Your task to perform on an android device: find photos in the google photos app Image 0: 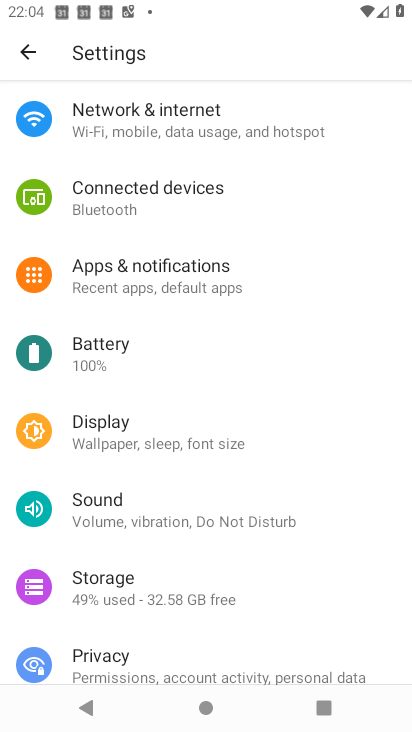
Step 0: press home button
Your task to perform on an android device: find photos in the google photos app Image 1: 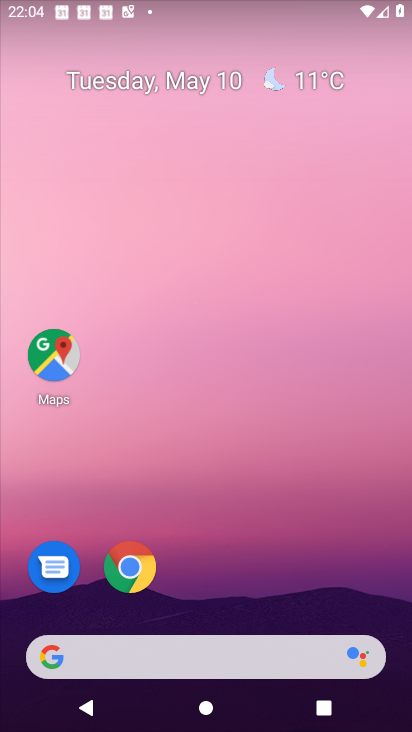
Step 1: drag from (178, 600) to (174, 236)
Your task to perform on an android device: find photos in the google photos app Image 2: 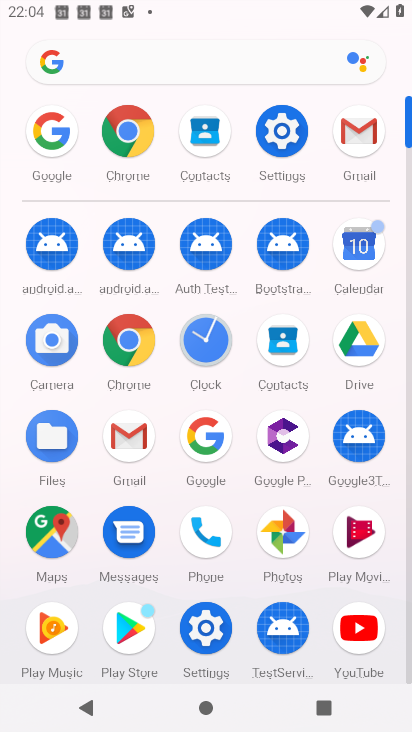
Step 2: click (283, 545)
Your task to perform on an android device: find photos in the google photos app Image 3: 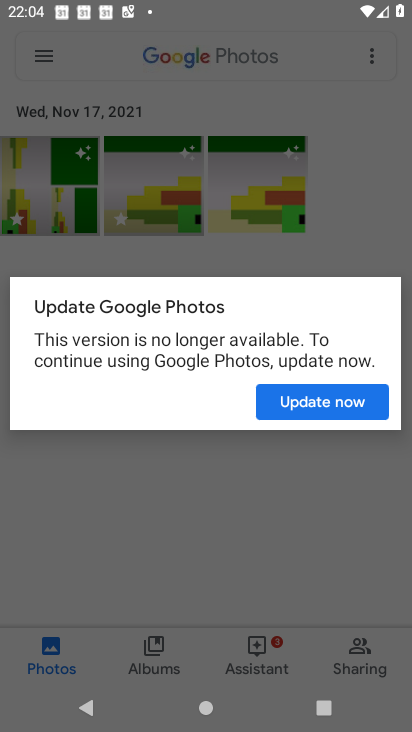
Step 3: click (311, 398)
Your task to perform on an android device: find photos in the google photos app Image 4: 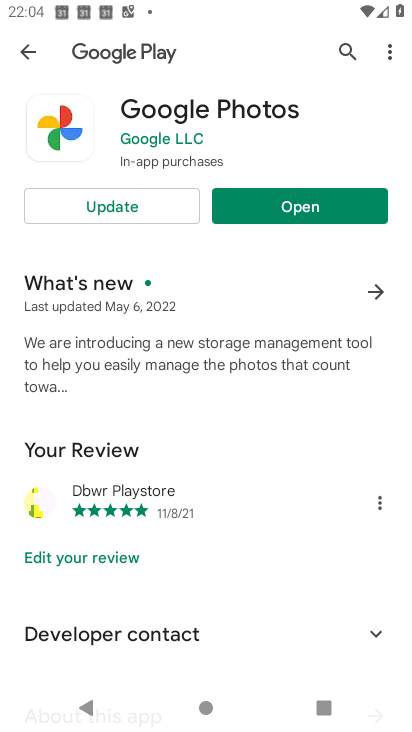
Step 4: click (149, 209)
Your task to perform on an android device: find photos in the google photos app Image 5: 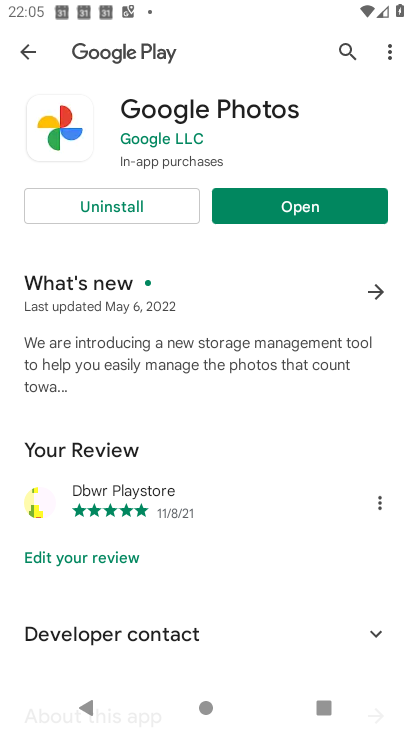
Step 5: press home button
Your task to perform on an android device: find photos in the google photos app Image 6: 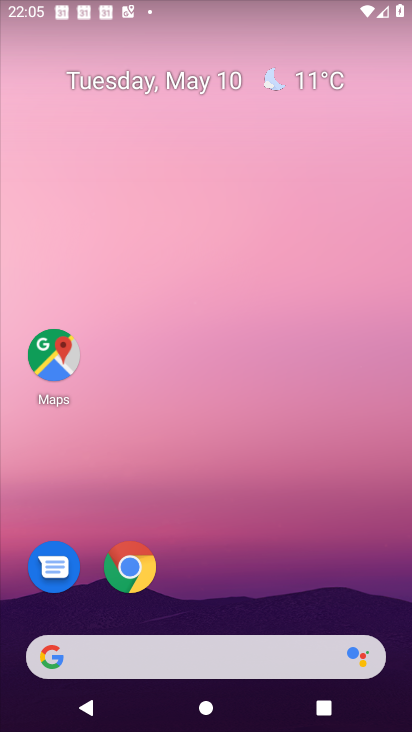
Step 6: drag from (177, 630) to (127, 432)
Your task to perform on an android device: find photos in the google photos app Image 7: 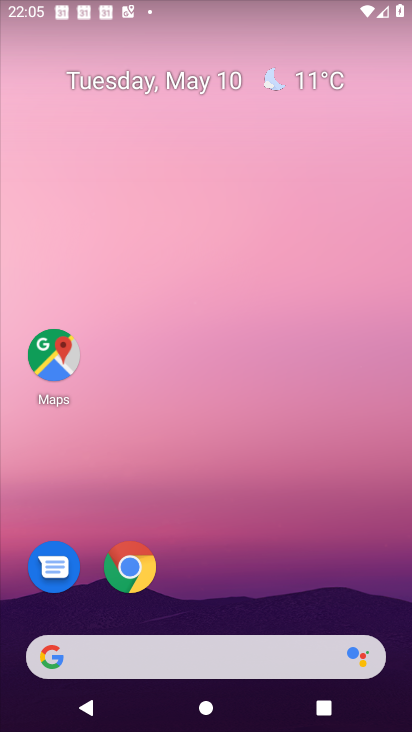
Step 7: drag from (185, 629) to (106, 234)
Your task to perform on an android device: find photos in the google photos app Image 8: 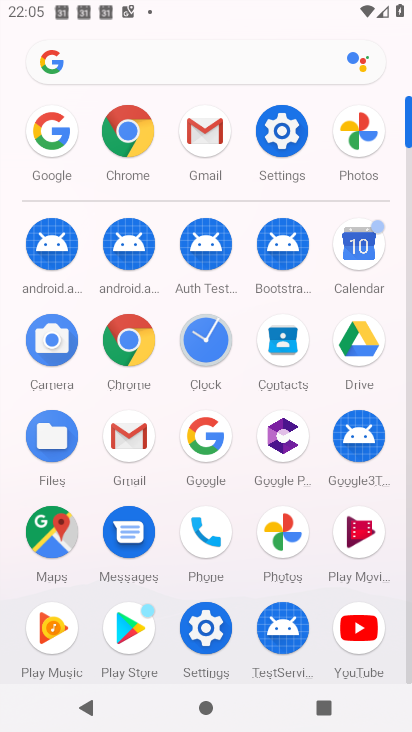
Step 8: click (295, 538)
Your task to perform on an android device: find photos in the google photos app Image 9: 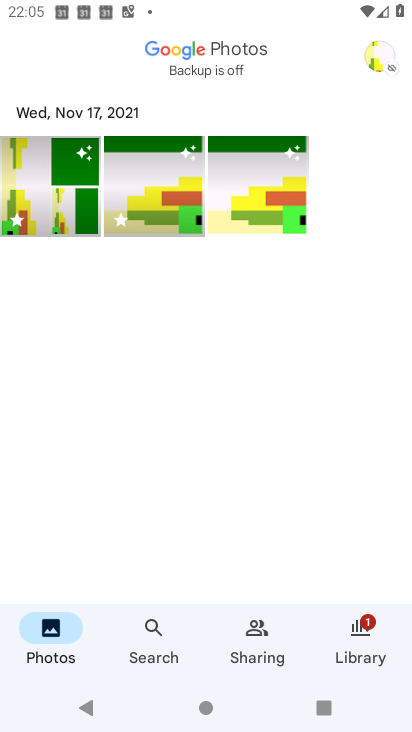
Step 9: click (149, 637)
Your task to perform on an android device: find photos in the google photos app Image 10: 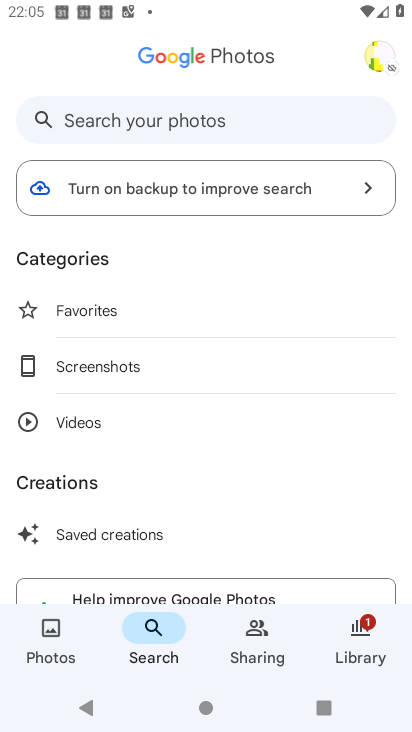
Step 10: click (124, 193)
Your task to perform on an android device: find photos in the google photos app Image 11: 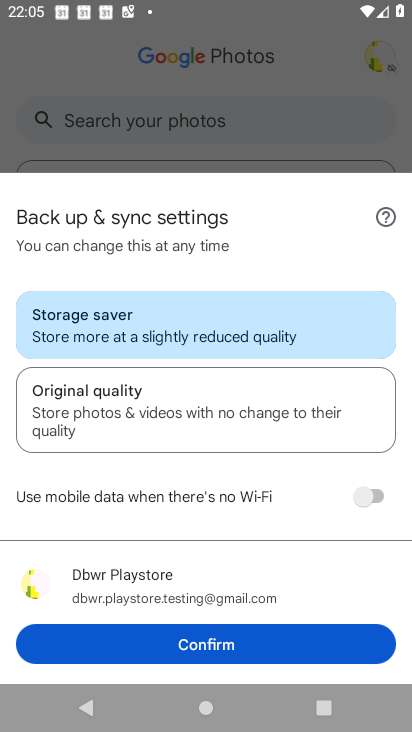
Step 11: click (99, 117)
Your task to perform on an android device: find photos in the google photos app Image 12: 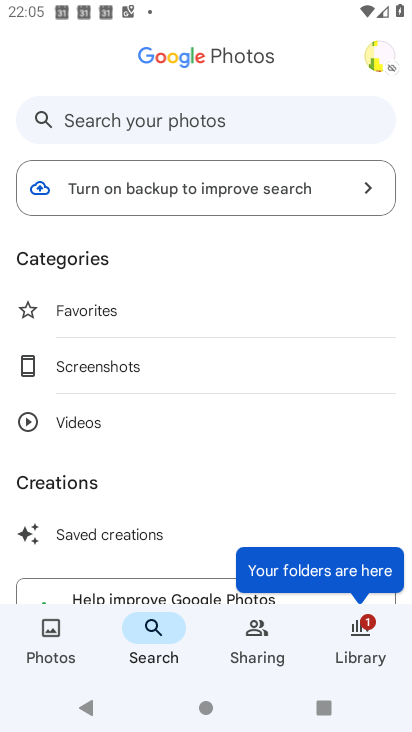
Step 12: click (101, 117)
Your task to perform on an android device: find photos in the google photos app Image 13: 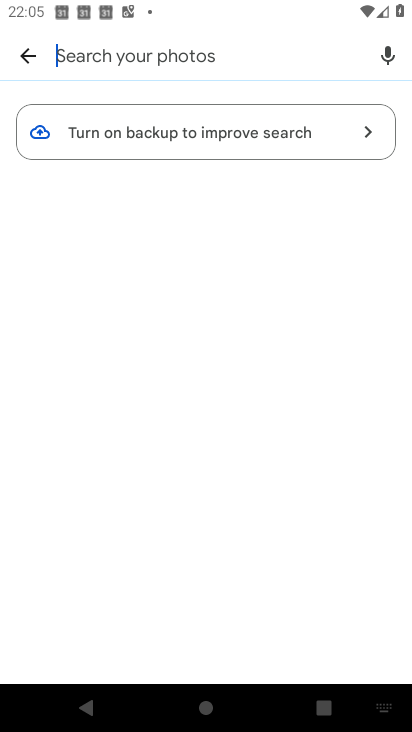
Step 13: type "album 09"
Your task to perform on an android device: find photos in the google photos app Image 14: 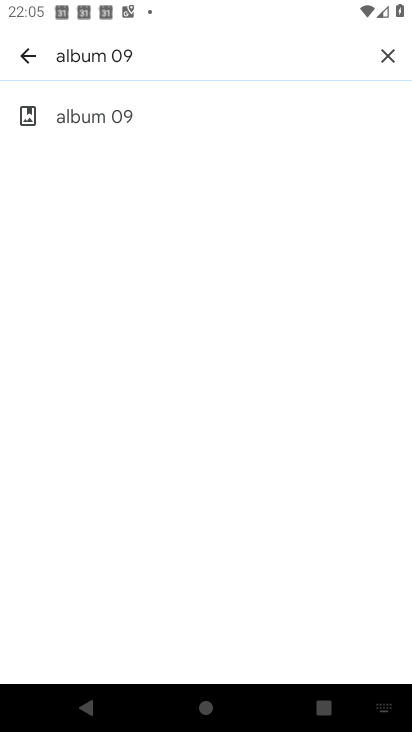
Step 14: click (101, 116)
Your task to perform on an android device: find photos in the google photos app Image 15: 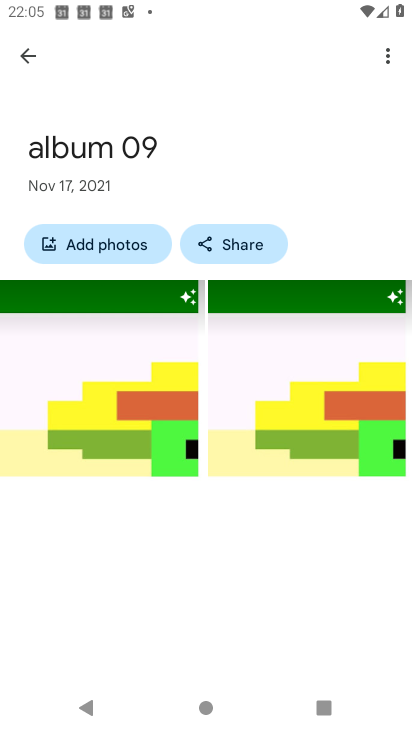
Step 15: task complete